Your task to perform on an android device: What's the weather going to be tomorrow? Image 0: 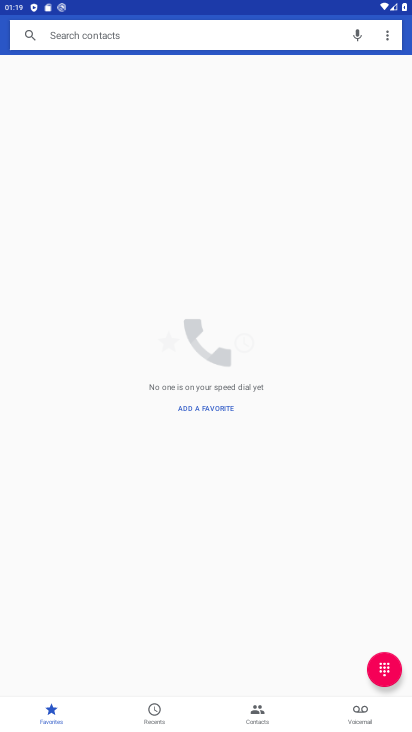
Step 0: press home button
Your task to perform on an android device: What's the weather going to be tomorrow? Image 1: 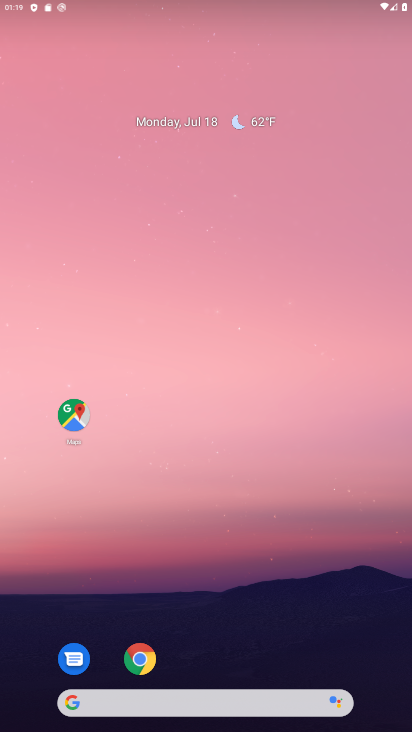
Step 1: drag from (311, 634) to (229, 110)
Your task to perform on an android device: What's the weather going to be tomorrow? Image 2: 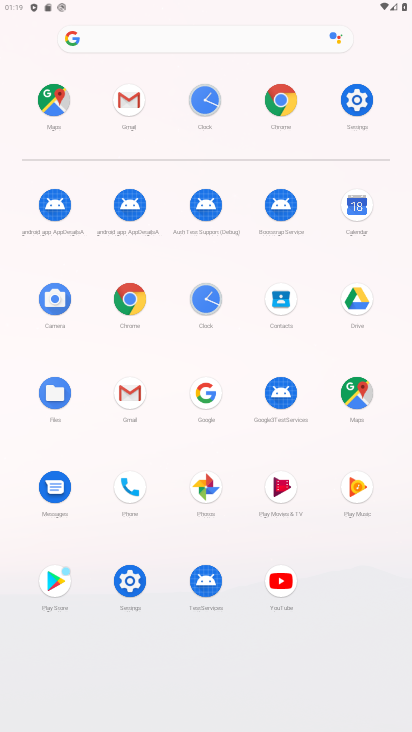
Step 2: click (284, 100)
Your task to perform on an android device: What's the weather going to be tomorrow? Image 3: 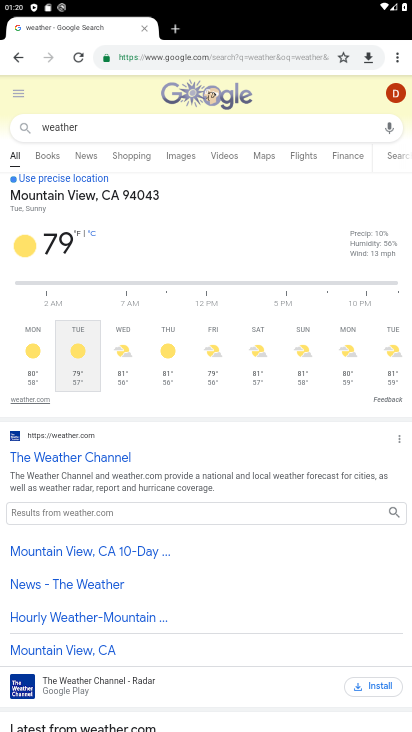
Step 3: task complete